Your task to perform on an android device: open sync settings in chrome Image 0: 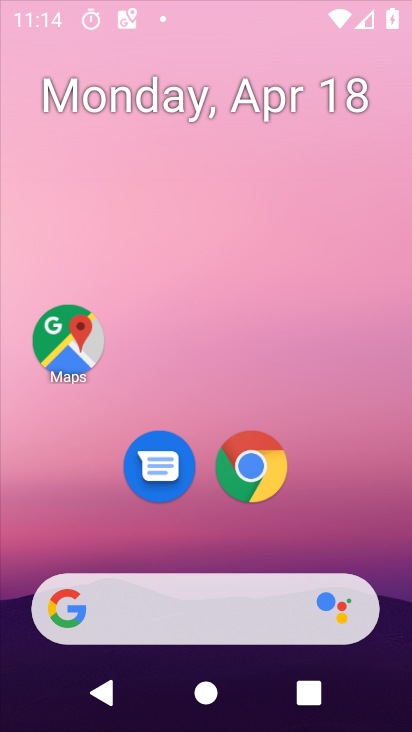
Step 0: click (328, 98)
Your task to perform on an android device: open sync settings in chrome Image 1: 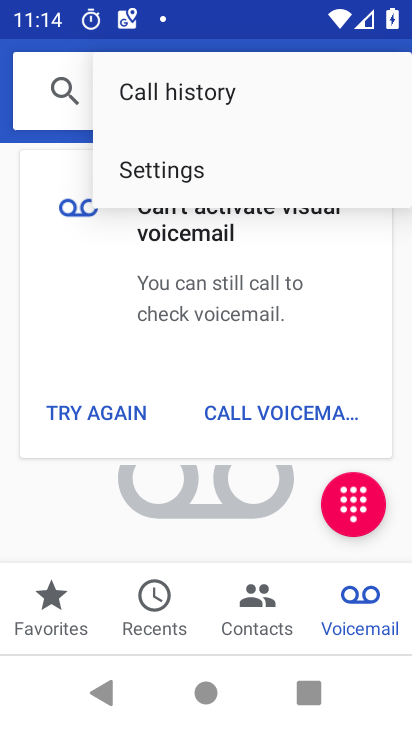
Step 1: press home button
Your task to perform on an android device: open sync settings in chrome Image 2: 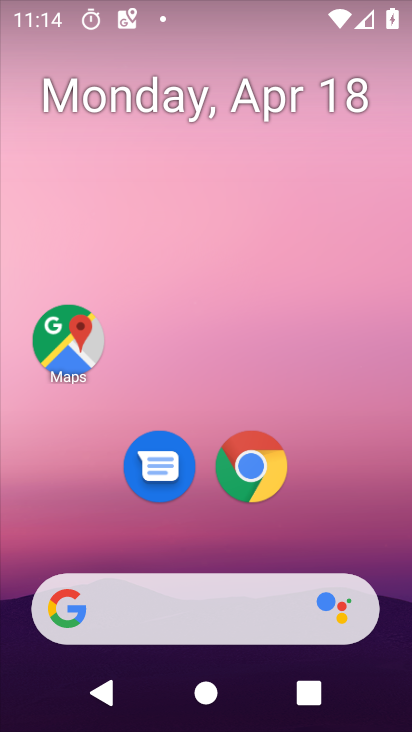
Step 2: drag from (254, 594) to (272, 241)
Your task to perform on an android device: open sync settings in chrome Image 3: 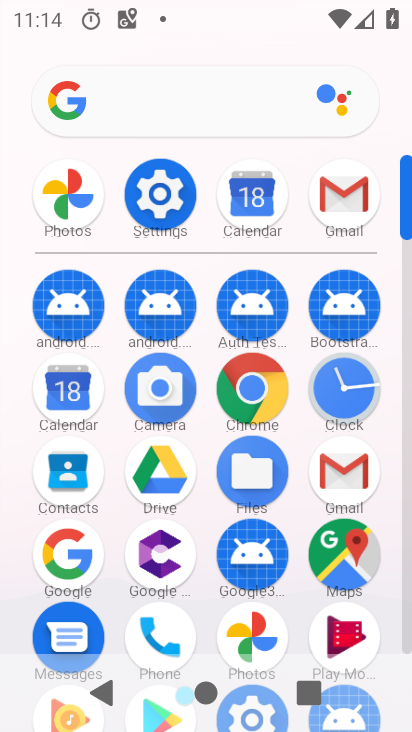
Step 3: click (272, 388)
Your task to perform on an android device: open sync settings in chrome Image 4: 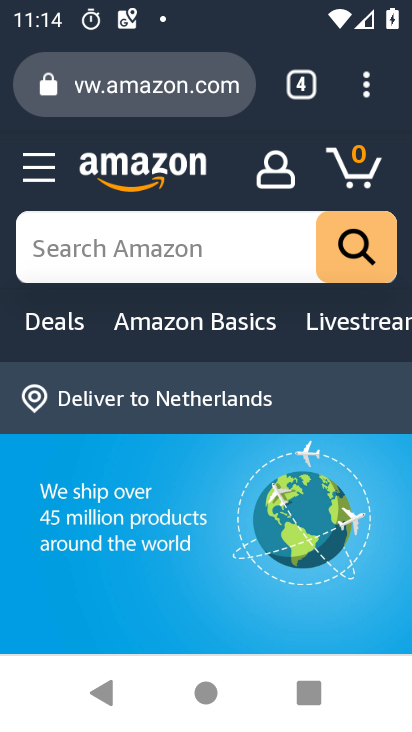
Step 4: click (371, 77)
Your task to perform on an android device: open sync settings in chrome Image 5: 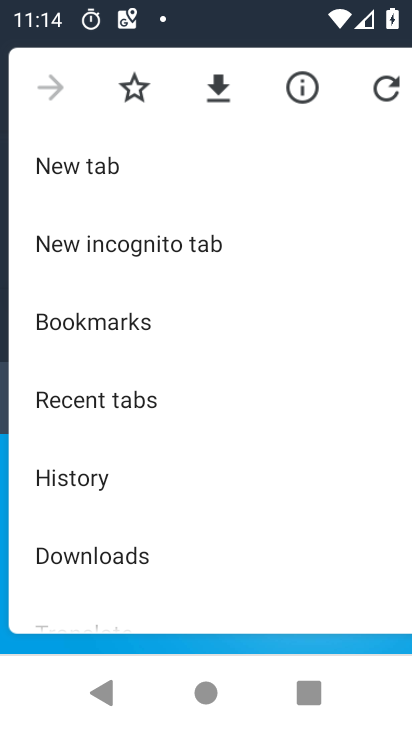
Step 5: drag from (171, 448) to (187, 293)
Your task to perform on an android device: open sync settings in chrome Image 6: 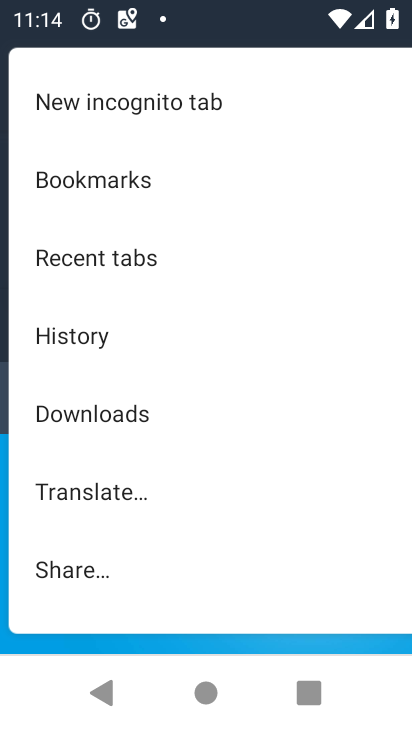
Step 6: drag from (154, 559) to (180, 374)
Your task to perform on an android device: open sync settings in chrome Image 7: 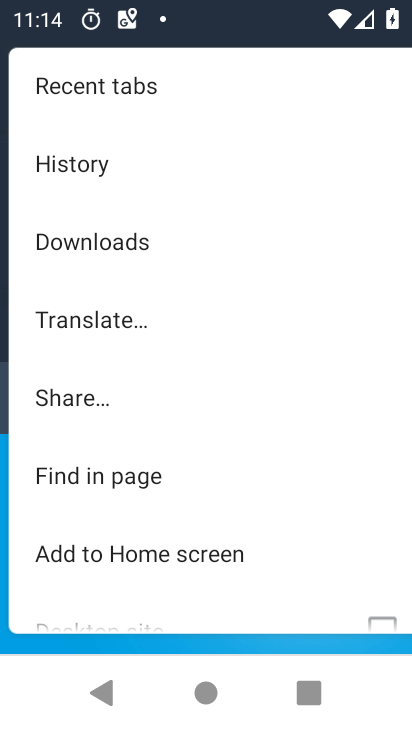
Step 7: drag from (186, 555) to (214, 333)
Your task to perform on an android device: open sync settings in chrome Image 8: 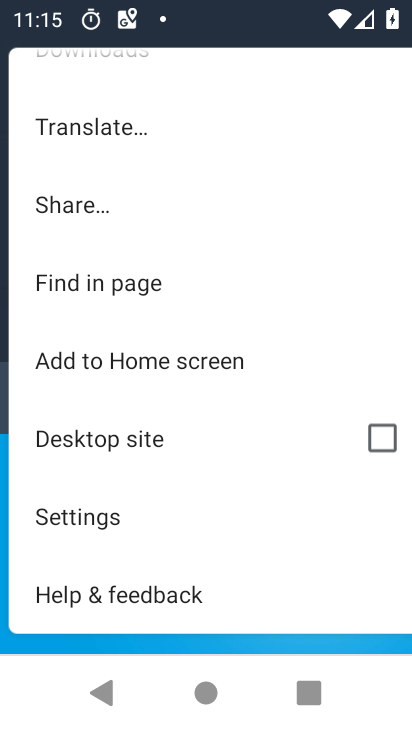
Step 8: click (134, 518)
Your task to perform on an android device: open sync settings in chrome Image 9: 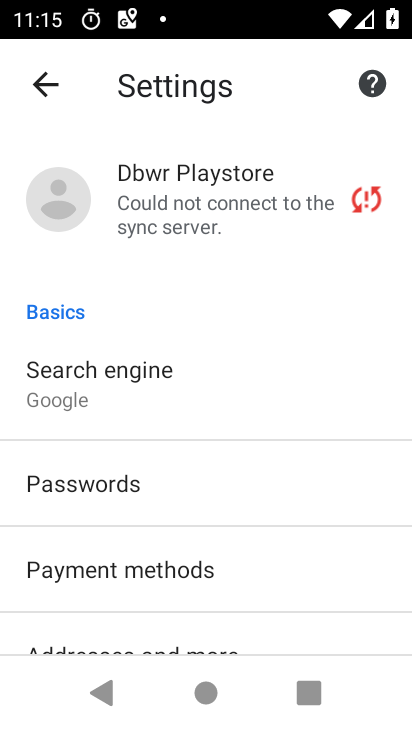
Step 9: click (253, 200)
Your task to perform on an android device: open sync settings in chrome Image 10: 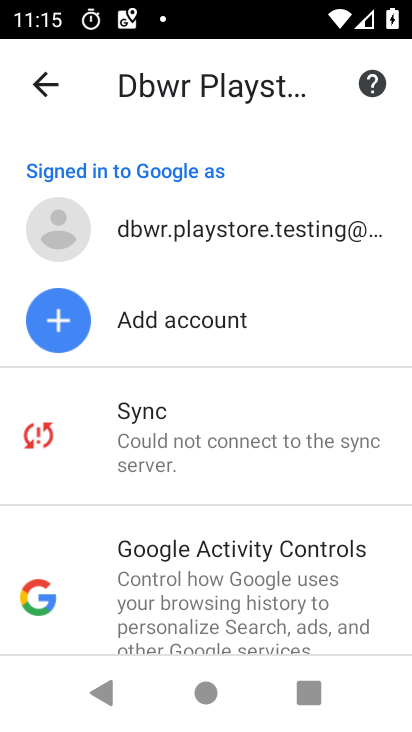
Step 10: click (243, 426)
Your task to perform on an android device: open sync settings in chrome Image 11: 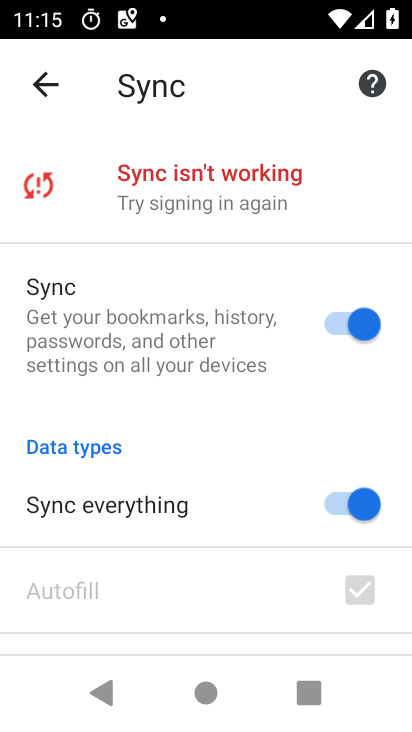
Step 11: task complete